Your task to perform on an android device: What's the weather going to be this weekend? Image 0: 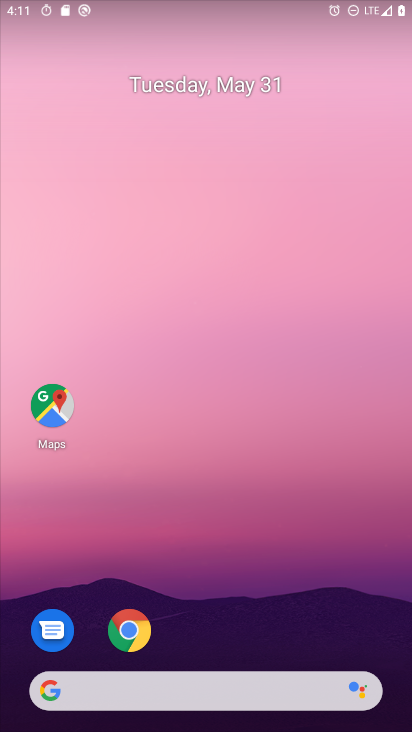
Step 0: drag from (157, 719) to (274, 717)
Your task to perform on an android device: What's the weather going to be this weekend? Image 1: 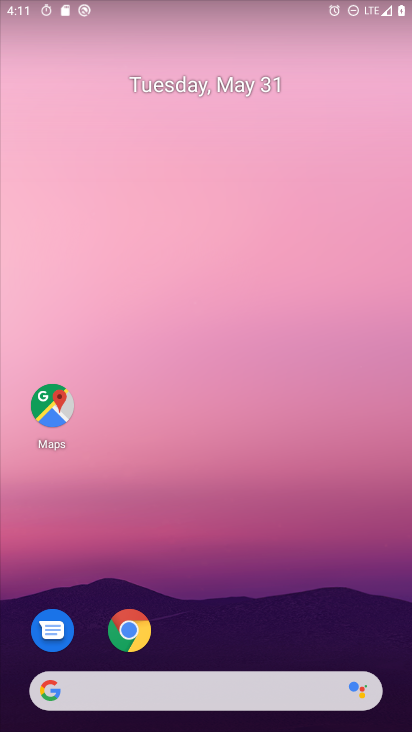
Step 1: drag from (24, 300) to (375, 275)
Your task to perform on an android device: What's the weather going to be this weekend? Image 2: 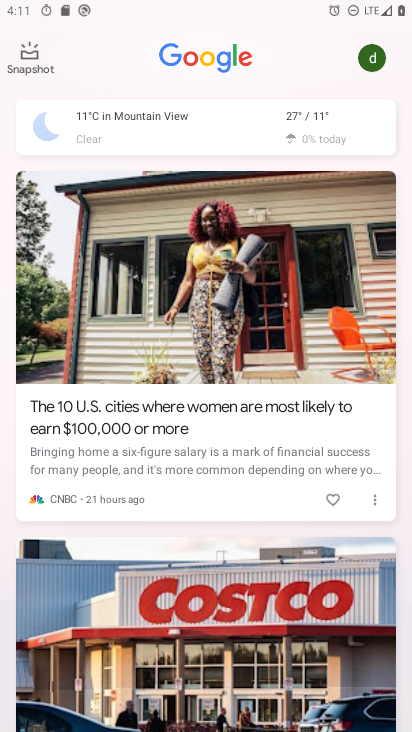
Step 2: click (171, 123)
Your task to perform on an android device: What's the weather going to be this weekend? Image 3: 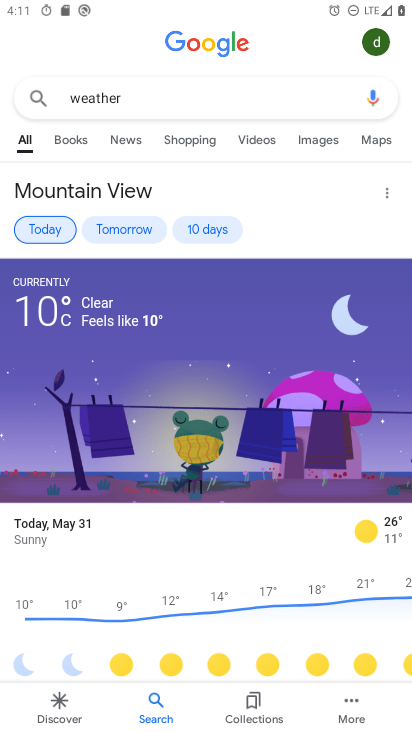
Step 3: click (234, 232)
Your task to perform on an android device: What's the weather going to be this weekend? Image 4: 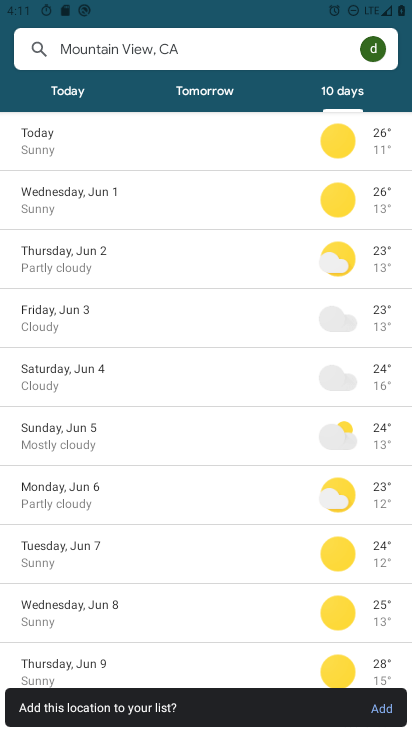
Step 4: task complete